Your task to perform on an android device: Show me some nice wallpapers for my phone Image 0: 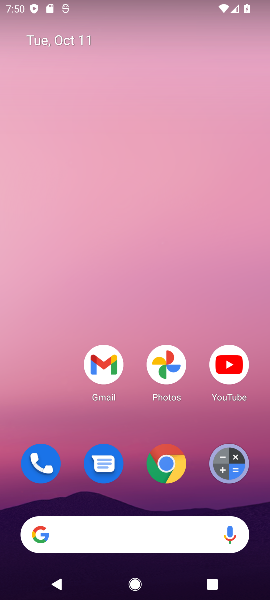
Step 0: drag from (126, 486) to (114, 127)
Your task to perform on an android device: Show me some nice wallpapers for my phone Image 1: 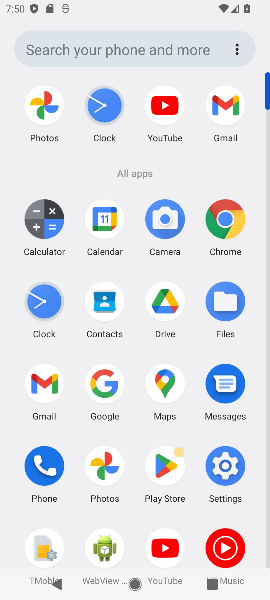
Step 1: click (233, 463)
Your task to perform on an android device: Show me some nice wallpapers for my phone Image 2: 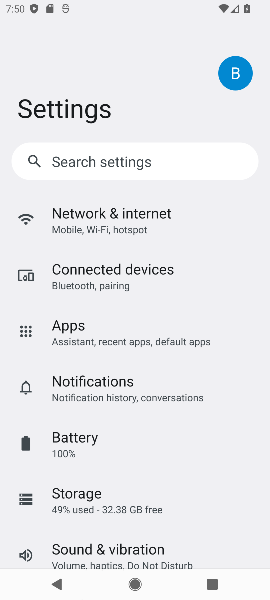
Step 2: drag from (139, 494) to (163, 210)
Your task to perform on an android device: Show me some nice wallpapers for my phone Image 3: 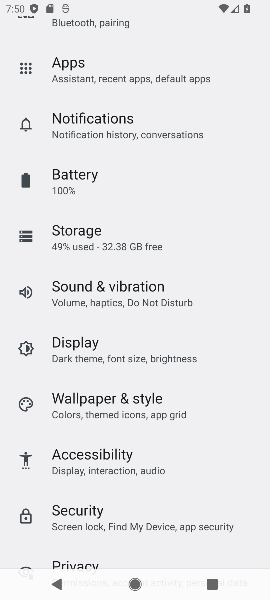
Step 3: click (109, 405)
Your task to perform on an android device: Show me some nice wallpapers for my phone Image 4: 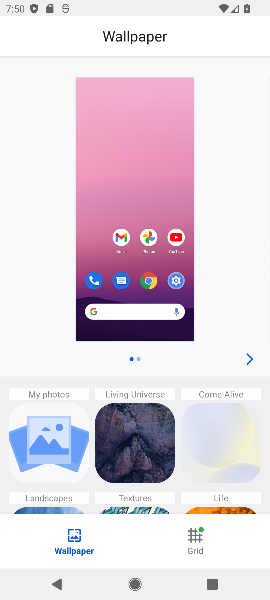
Step 4: task complete